Your task to perform on an android device: open a bookmark in the chrome app Image 0: 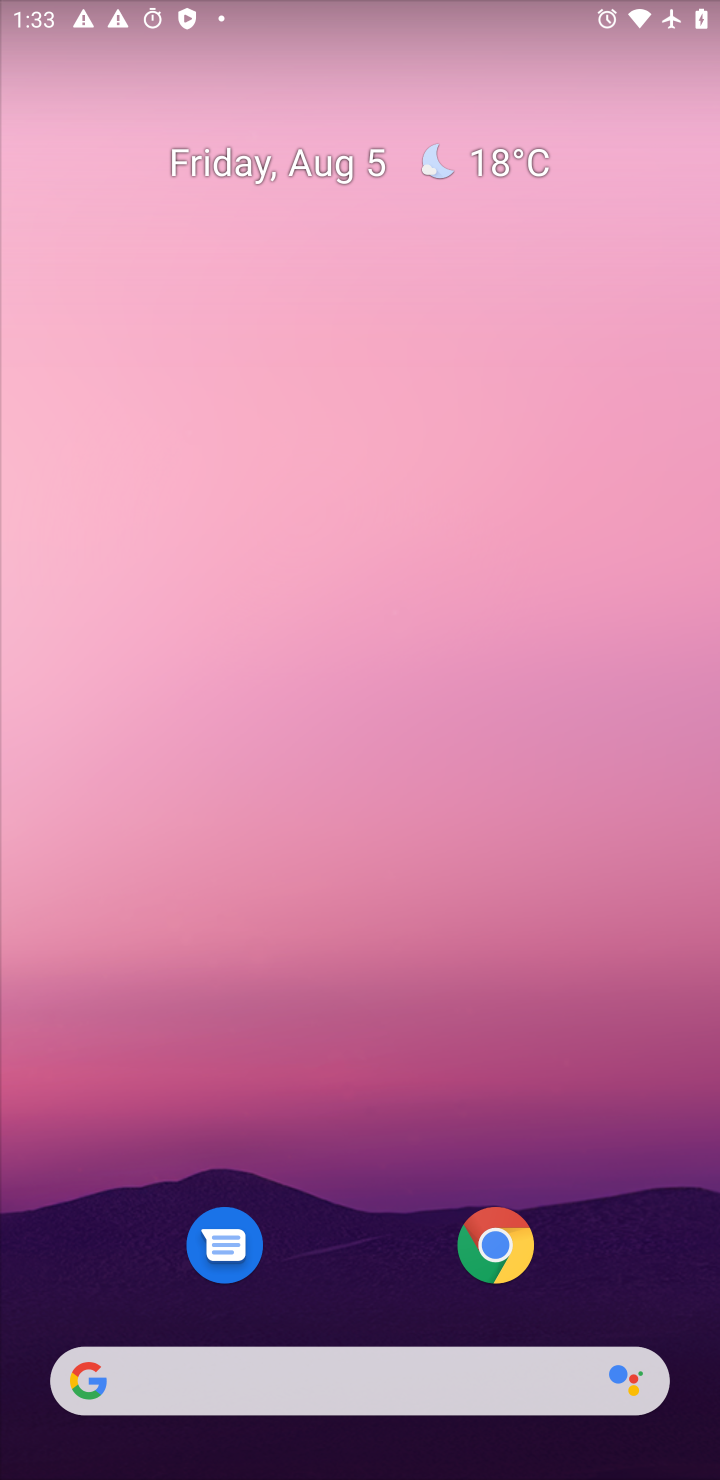
Step 0: press home button
Your task to perform on an android device: open a bookmark in the chrome app Image 1: 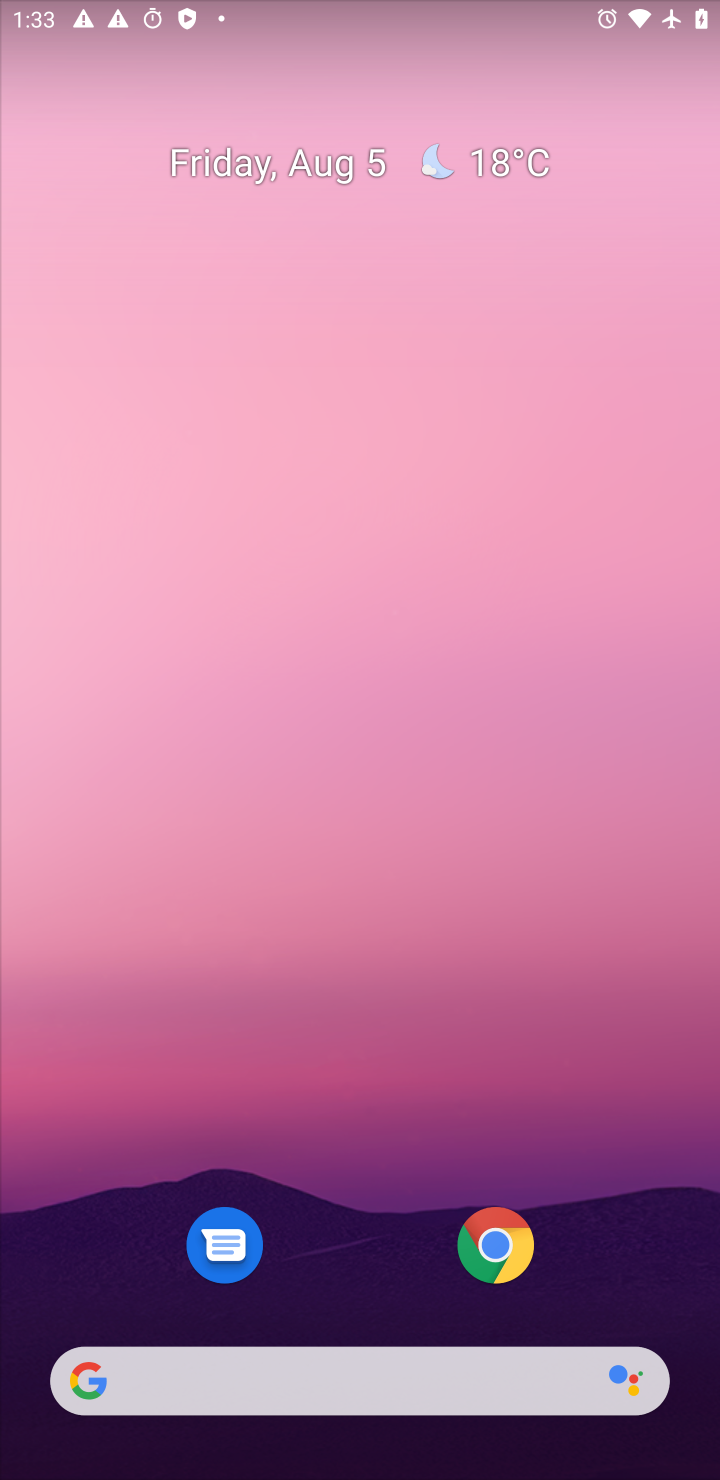
Step 1: drag from (395, 1311) to (468, 325)
Your task to perform on an android device: open a bookmark in the chrome app Image 2: 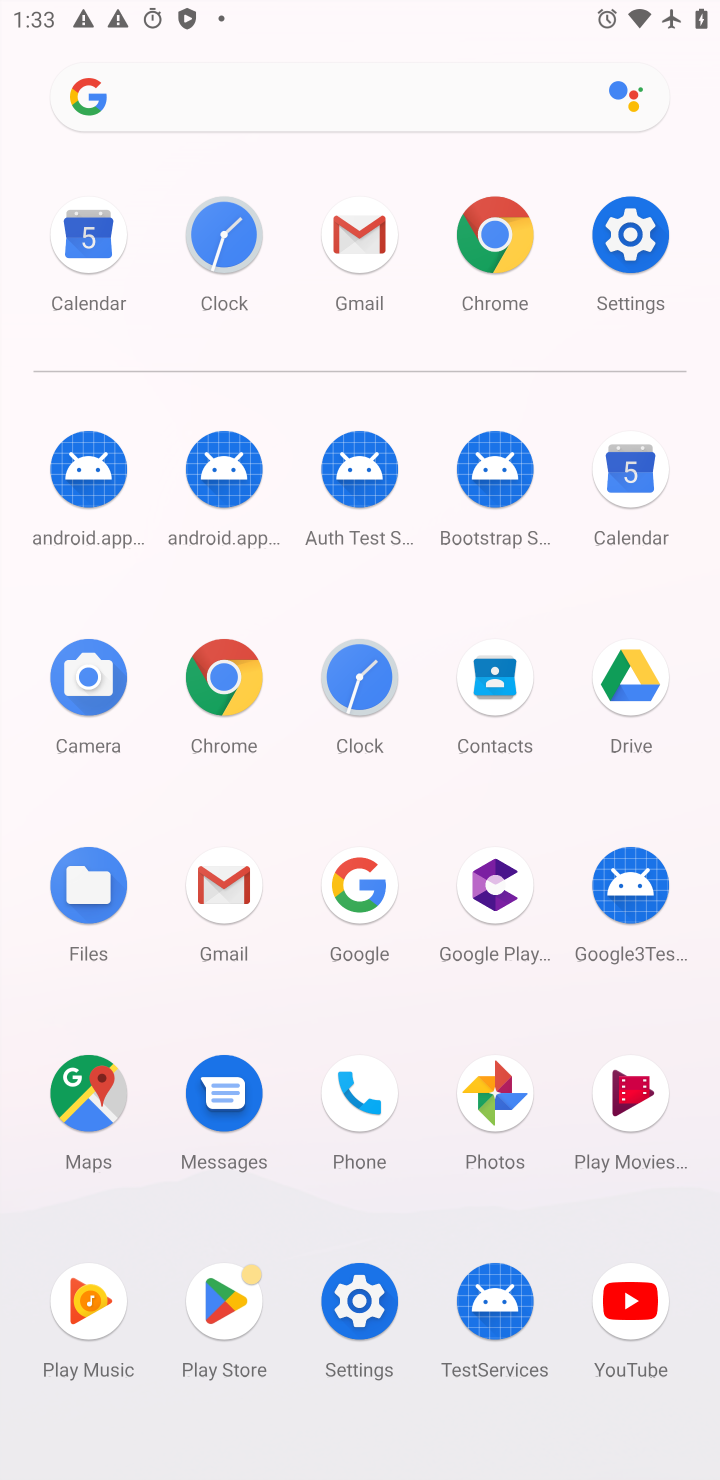
Step 2: click (489, 245)
Your task to perform on an android device: open a bookmark in the chrome app Image 3: 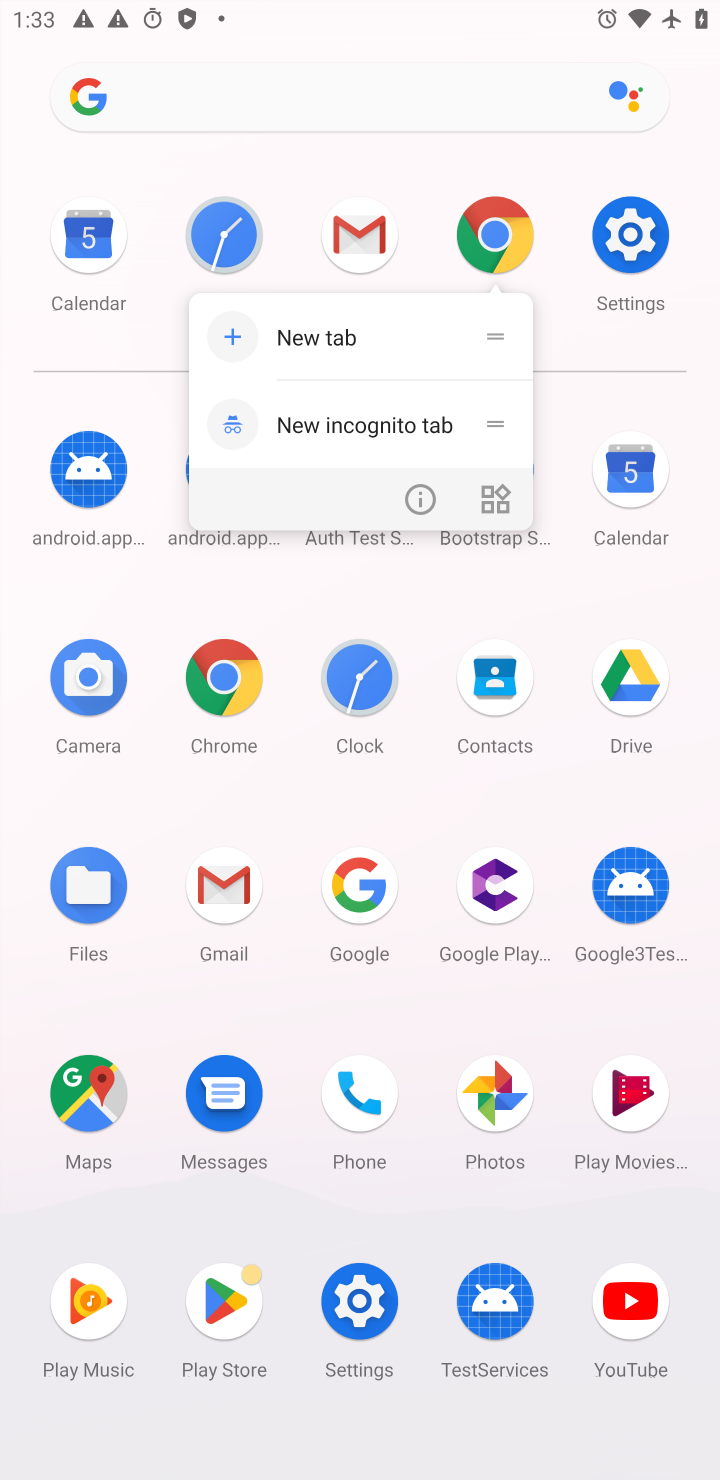
Step 3: click (510, 236)
Your task to perform on an android device: open a bookmark in the chrome app Image 4: 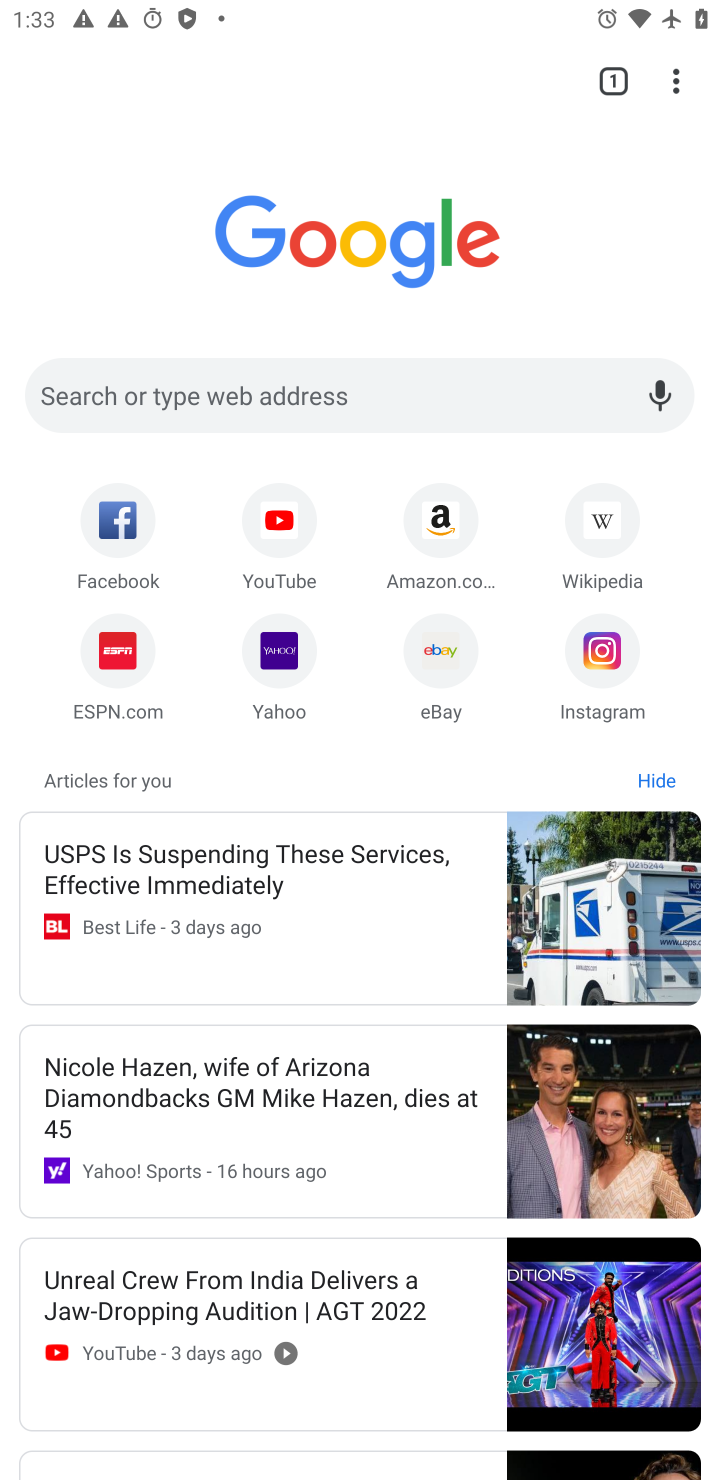
Step 4: drag from (675, 79) to (408, 414)
Your task to perform on an android device: open a bookmark in the chrome app Image 5: 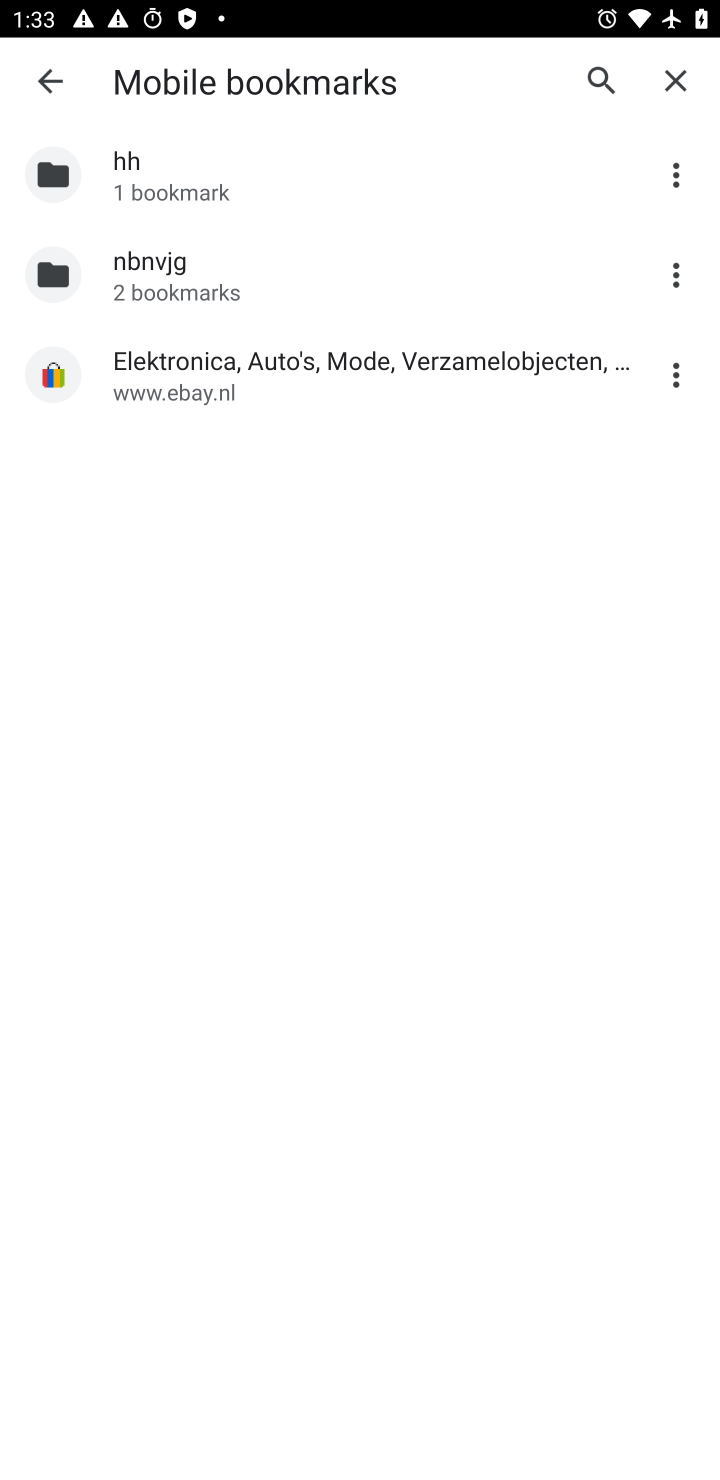
Step 5: click (302, 369)
Your task to perform on an android device: open a bookmark in the chrome app Image 6: 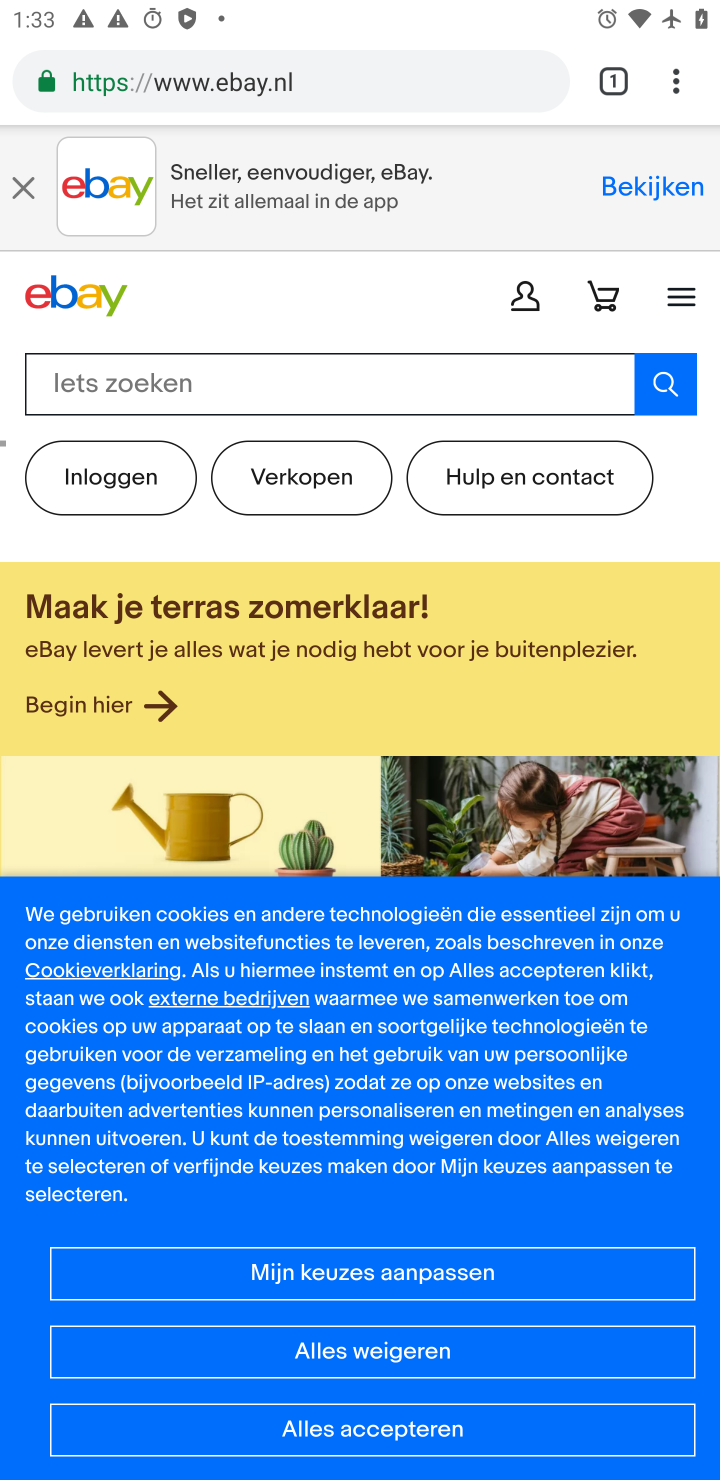
Step 6: task complete